Your task to perform on an android device: change the clock display to digital Image 0: 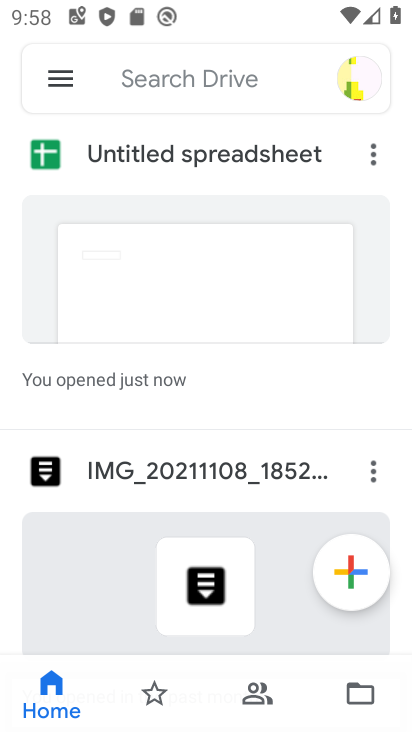
Step 0: press home button
Your task to perform on an android device: change the clock display to digital Image 1: 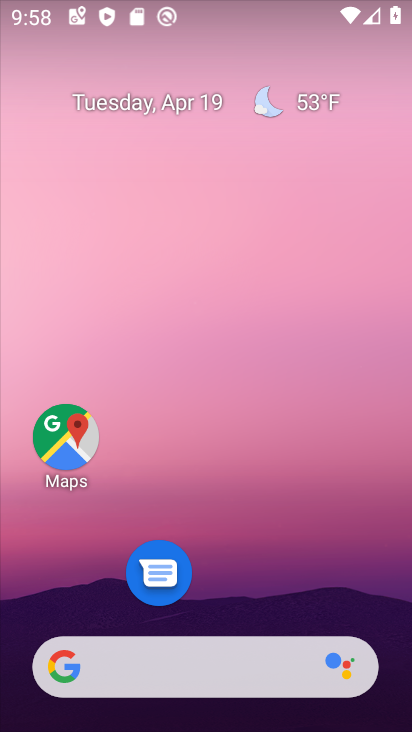
Step 1: drag from (239, 461) to (239, 159)
Your task to perform on an android device: change the clock display to digital Image 2: 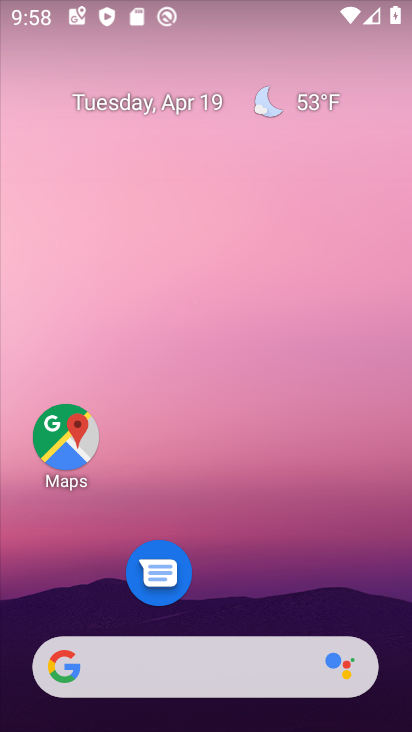
Step 2: drag from (232, 485) to (232, 75)
Your task to perform on an android device: change the clock display to digital Image 3: 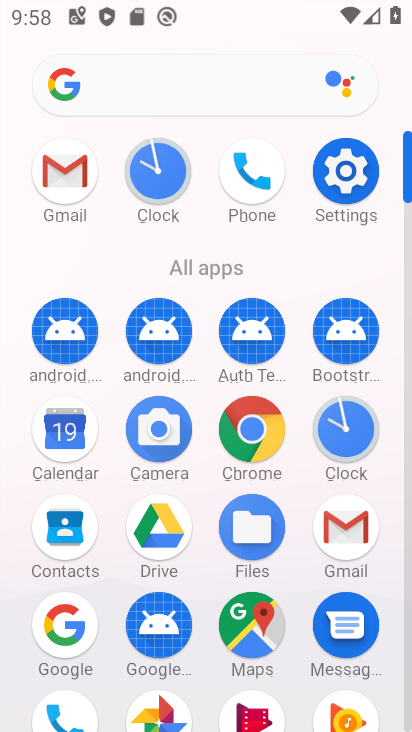
Step 3: click (159, 187)
Your task to perform on an android device: change the clock display to digital Image 4: 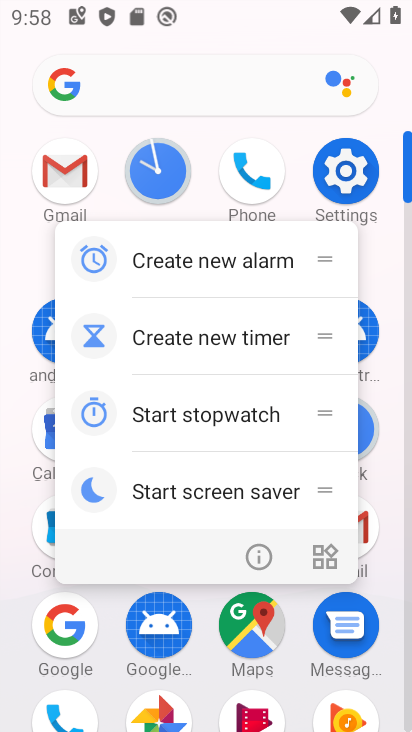
Step 4: click (148, 165)
Your task to perform on an android device: change the clock display to digital Image 5: 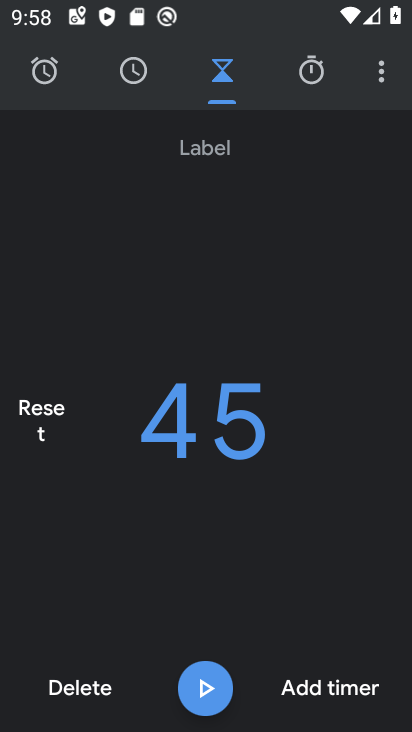
Step 5: click (379, 71)
Your task to perform on an android device: change the clock display to digital Image 6: 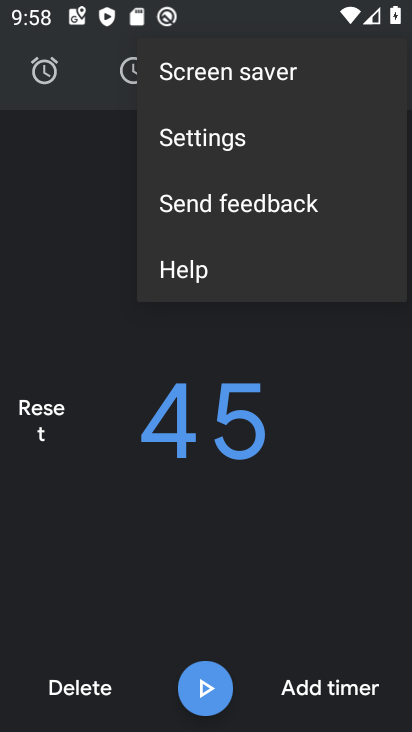
Step 6: click (267, 139)
Your task to perform on an android device: change the clock display to digital Image 7: 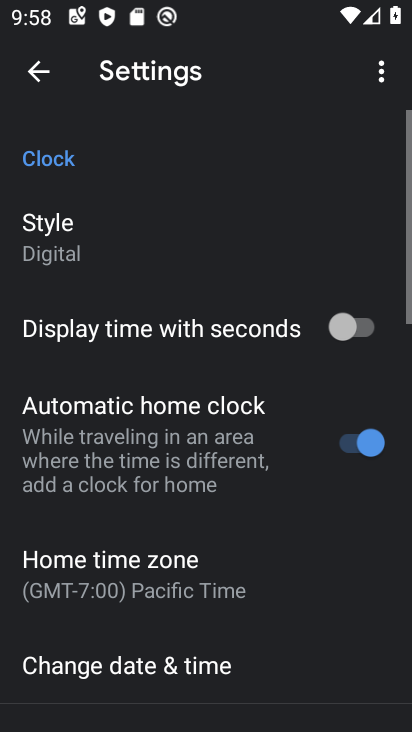
Step 7: click (211, 248)
Your task to perform on an android device: change the clock display to digital Image 8: 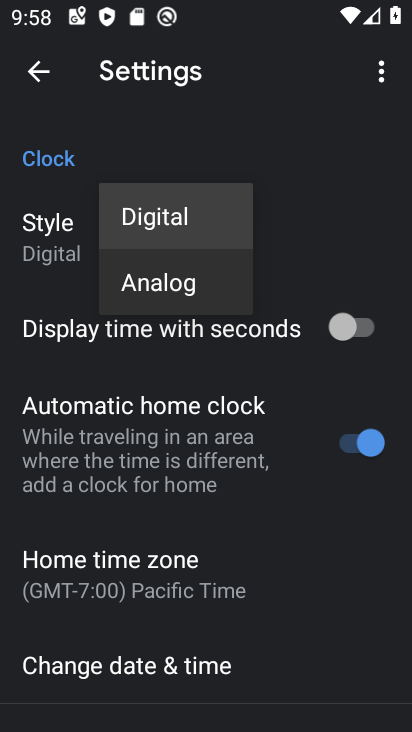
Step 8: task complete